Your task to perform on an android device: turn on the 24-hour format for clock Image 0: 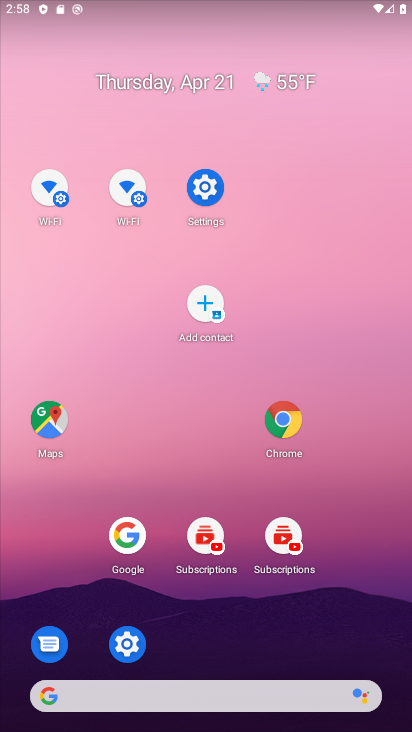
Step 0: drag from (240, 612) to (125, 3)
Your task to perform on an android device: turn on the 24-hour format for clock Image 1: 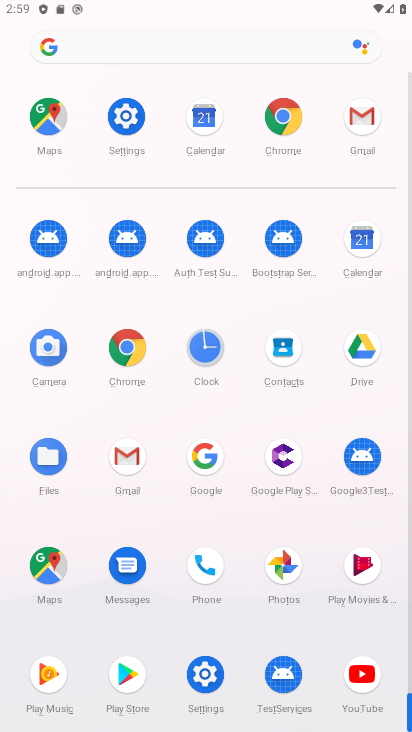
Step 1: click (204, 354)
Your task to perform on an android device: turn on the 24-hour format for clock Image 2: 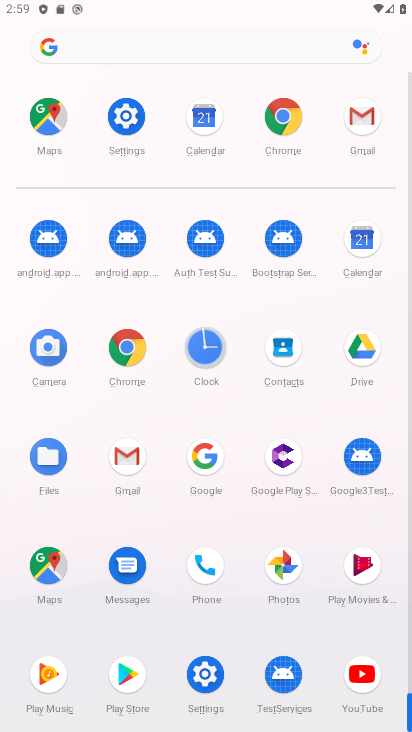
Step 2: click (204, 354)
Your task to perform on an android device: turn on the 24-hour format for clock Image 3: 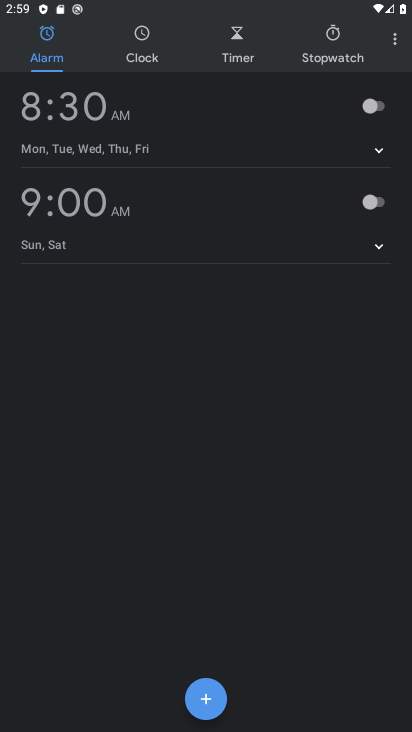
Step 3: click (391, 33)
Your task to perform on an android device: turn on the 24-hour format for clock Image 4: 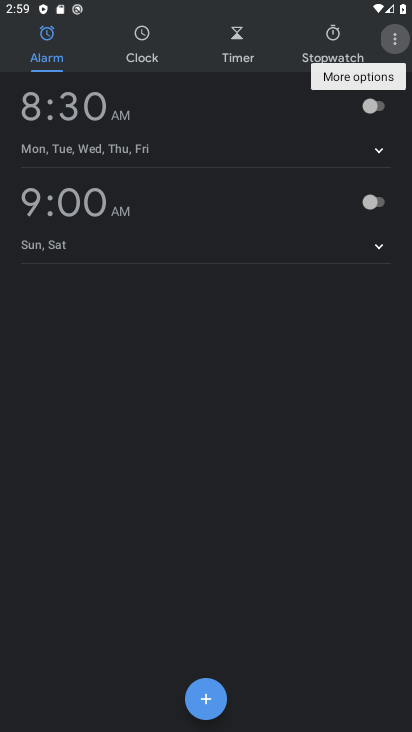
Step 4: click (393, 50)
Your task to perform on an android device: turn on the 24-hour format for clock Image 5: 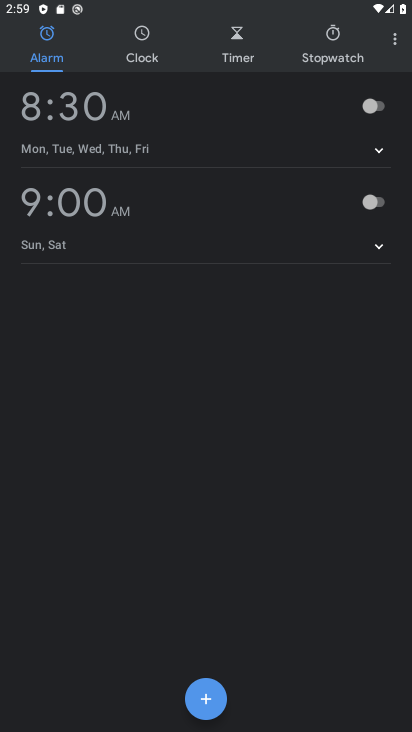
Step 5: click (399, 41)
Your task to perform on an android device: turn on the 24-hour format for clock Image 6: 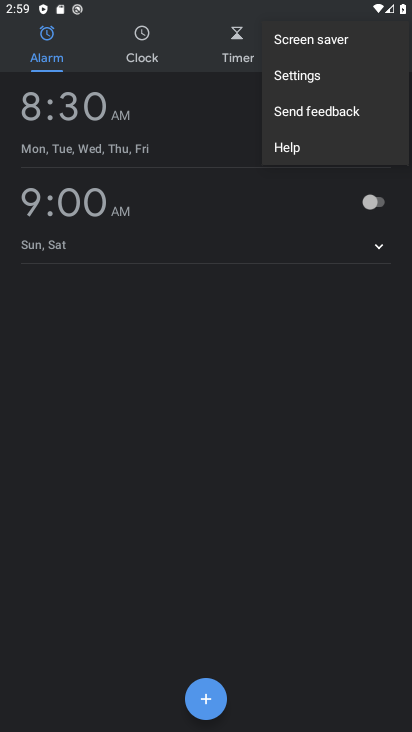
Step 6: click (302, 72)
Your task to perform on an android device: turn on the 24-hour format for clock Image 7: 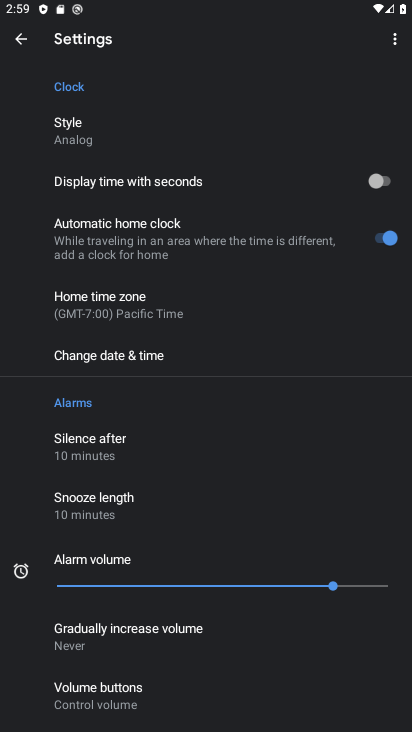
Step 7: drag from (250, 583) to (182, 143)
Your task to perform on an android device: turn on the 24-hour format for clock Image 8: 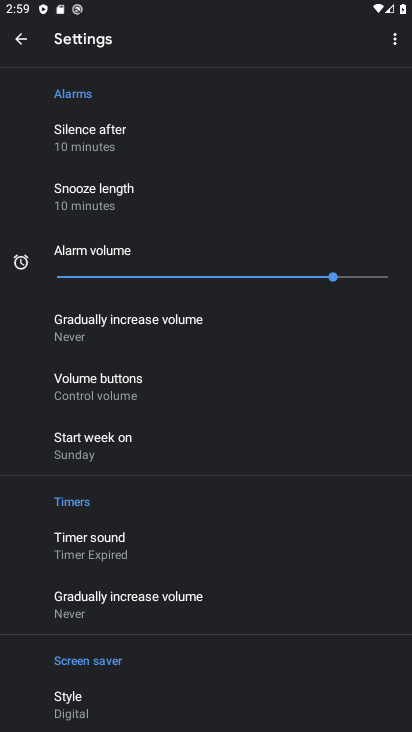
Step 8: drag from (110, 566) to (96, 125)
Your task to perform on an android device: turn on the 24-hour format for clock Image 9: 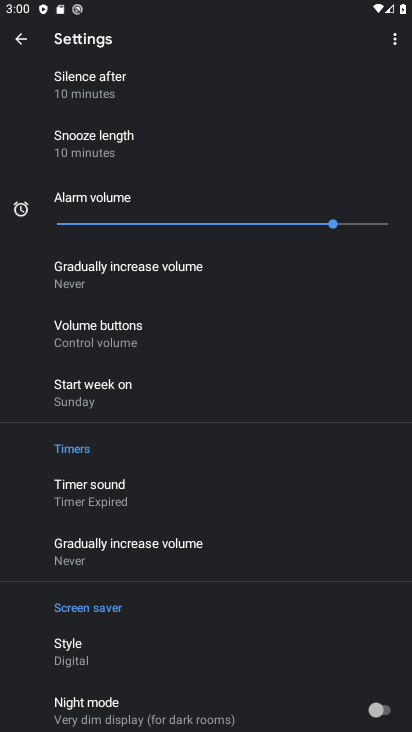
Step 9: drag from (232, 284) to (323, 564)
Your task to perform on an android device: turn on the 24-hour format for clock Image 10: 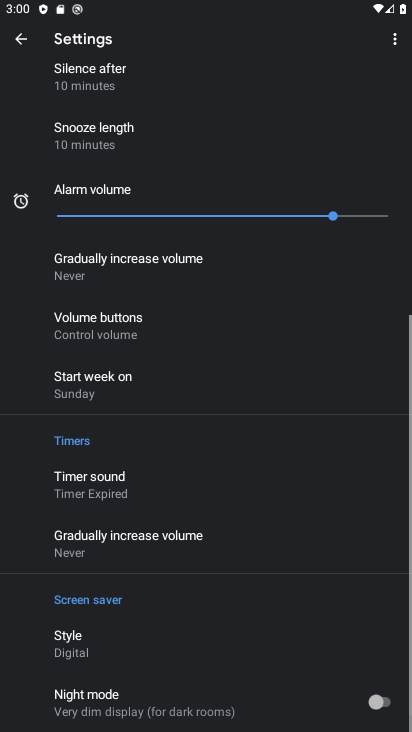
Step 10: drag from (360, 612) to (264, 503)
Your task to perform on an android device: turn on the 24-hour format for clock Image 11: 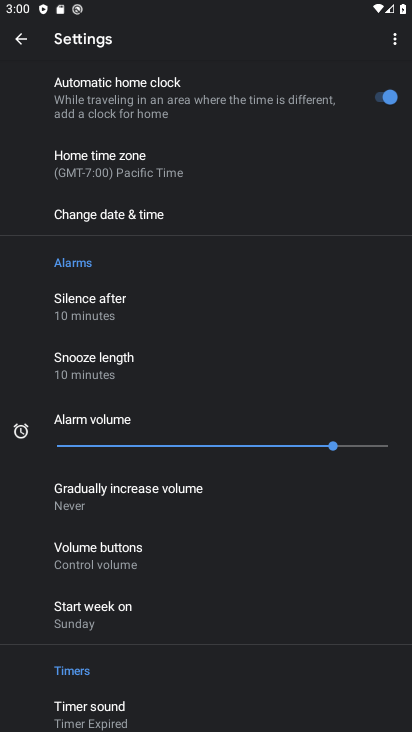
Step 11: drag from (161, 684) to (136, 348)
Your task to perform on an android device: turn on the 24-hour format for clock Image 12: 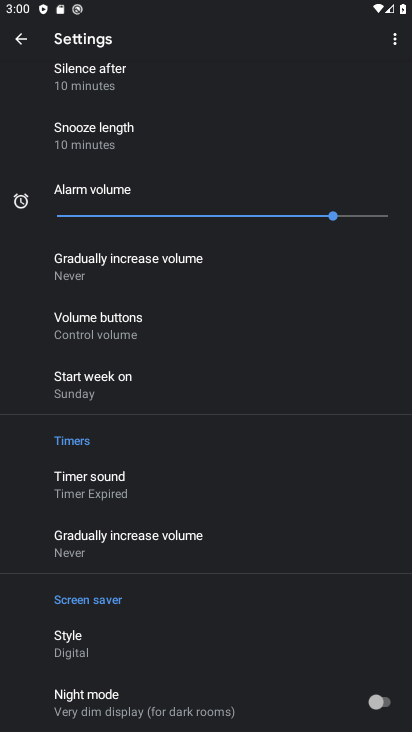
Step 12: drag from (137, 244) to (215, 540)
Your task to perform on an android device: turn on the 24-hour format for clock Image 13: 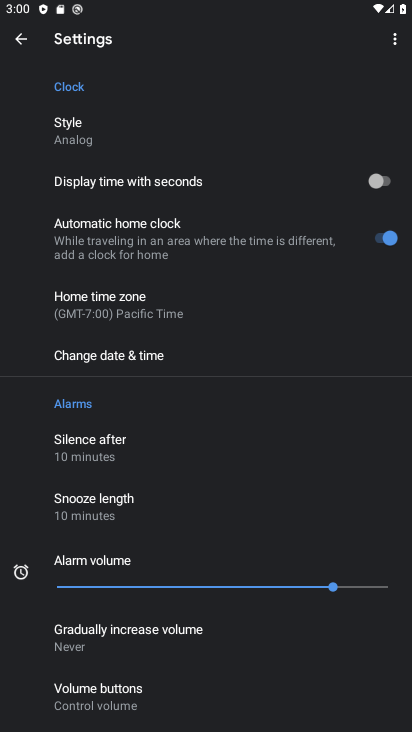
Step 13: click (115, 349)
Your task to perform on an android device: turn on the 24-hour format for clock Image 14: 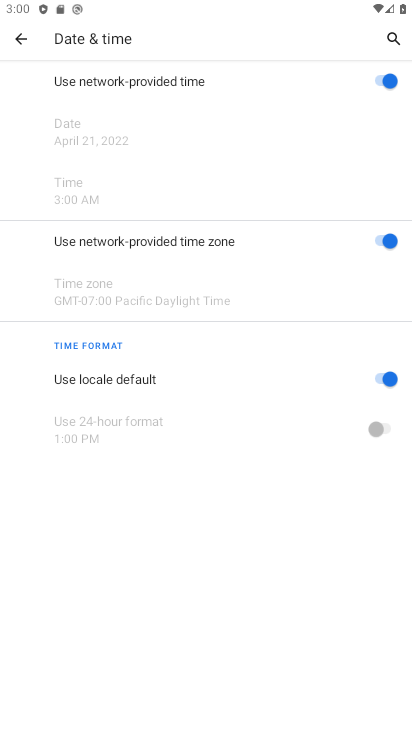
Step 14: click (392, 373)
Your task to perform on an android device: turn on the 24-hour format for clock Image 15: 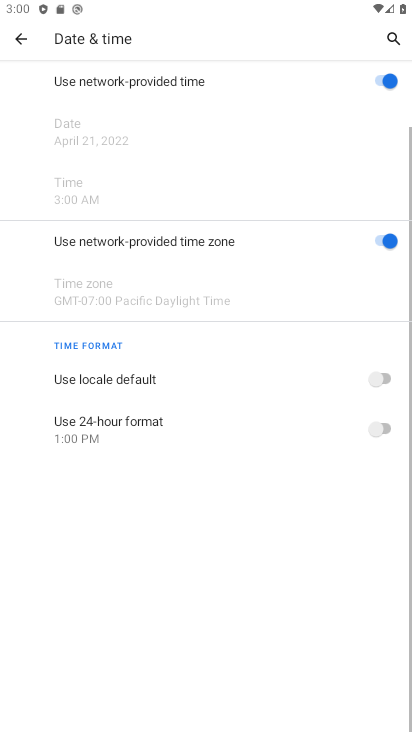
Step 15: click (378, 423)
Your task to perform on an android device: turn on the 24-hour format for clock Image 16: 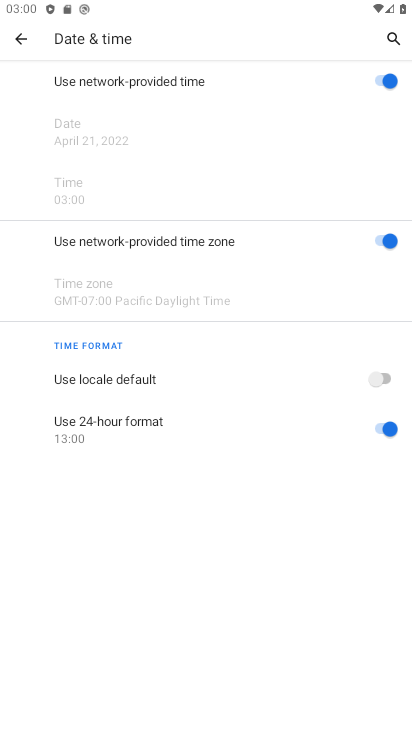
Step 16: task complete